Your task to perform on an android device: Open calendar and show me the third week of next month Image 0: 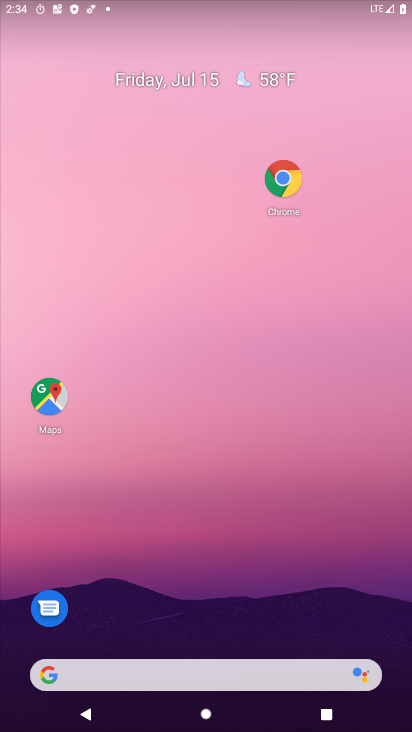
Step 0: drag from (261, 603) to (368, 65)
Your task to perform on an android device: Open calendar and show me the third week of next month Image 1: 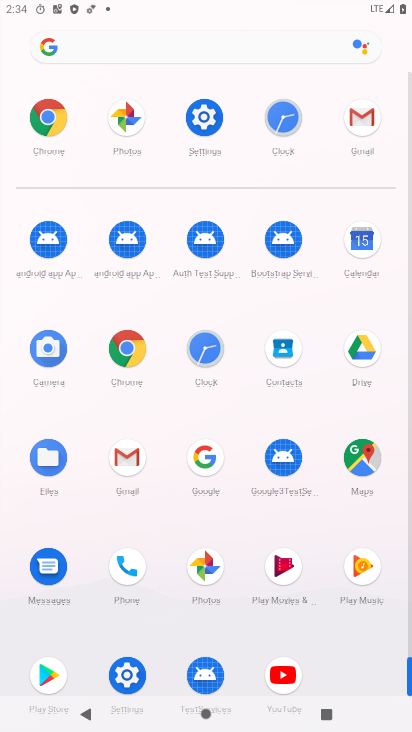
Step 1: click (365, 245)
Your task to perform on an android device: Open calendar and show me the third week of next month Image 2: 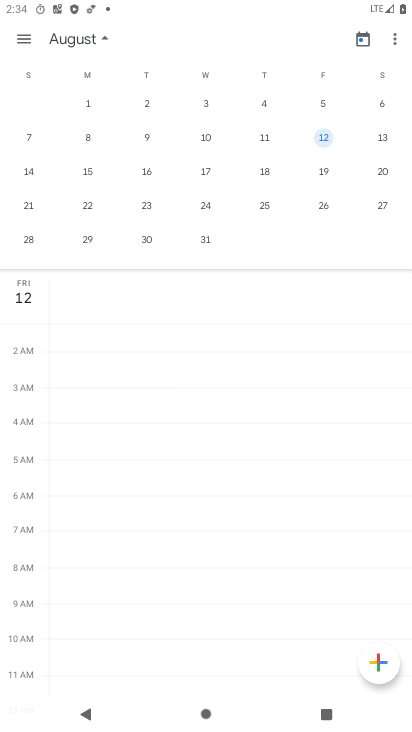
Step 2: click (321, 173)
Your task to perform on an android device: Open calendar and show me the third week of next month Image 3: 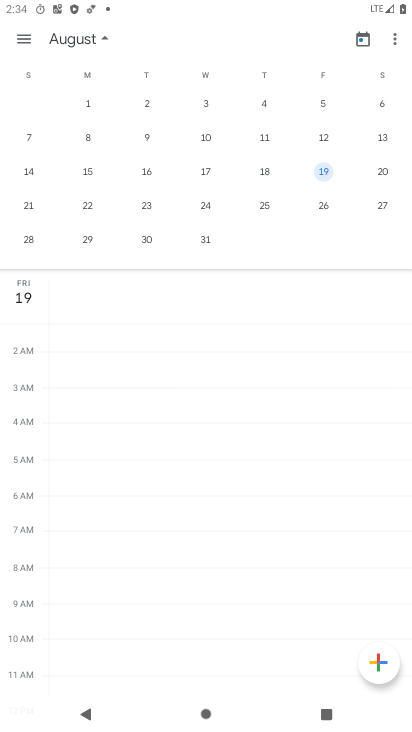
Step 3: task complete